Your task to perform on an android device: open chrome privacy settings Image 0: 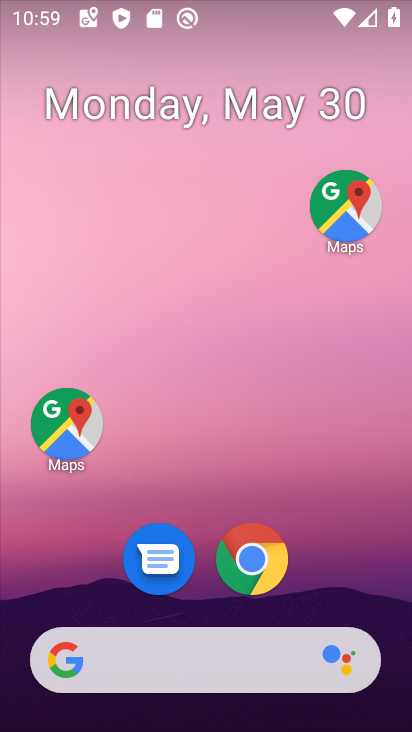
Step 0: drag from (330, 547) to (288, 169)
Your task to perform on an android device: open chrome privacy settings Image 1: 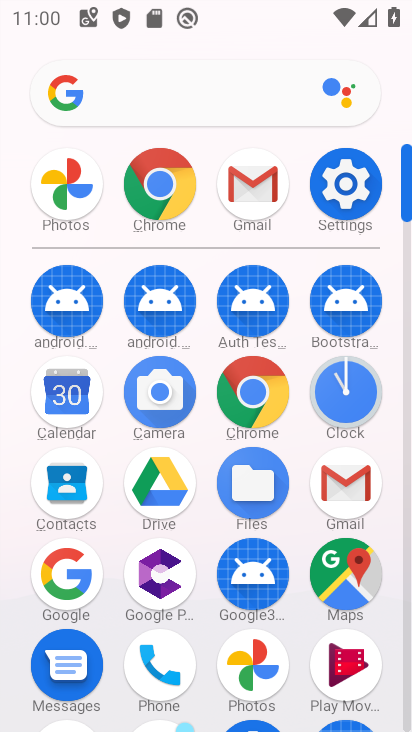
Step 1: click (345, 180)
Your task to perform on an android device: open chrome privacy settings Image 2: 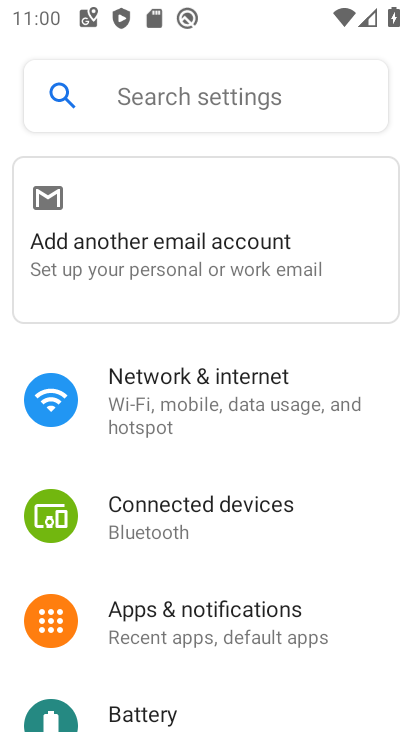
Step 2: drag from (252, 628) to (273, 233)
Your task to perform on an android device: open chrome privacy settings Image 3: 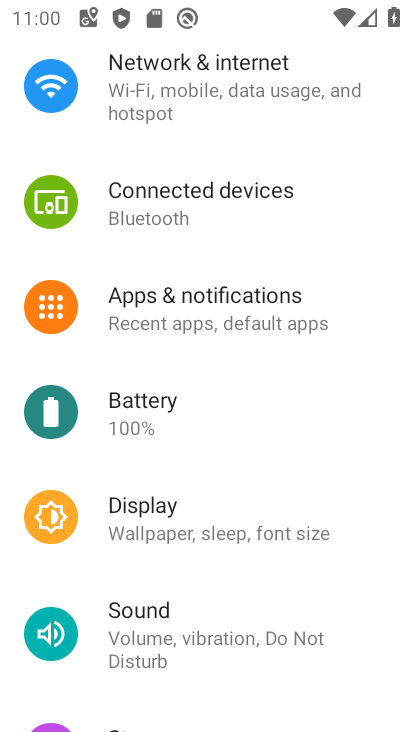
Step 3: drag from (235, 636) to (265, 347)
Your task to perform on an android device: open chrome privacy settings Image 4: 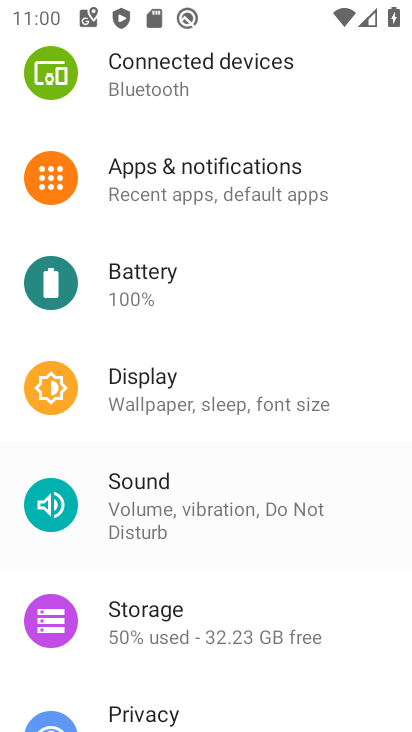
Step 4: click (263, 326)
Your task to perform on an android device: open chrome privacy settings Image 5: 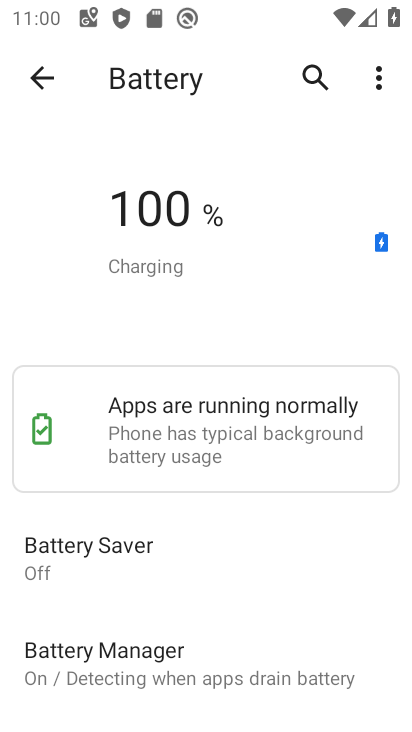
Step 5: click (47, 80)
Your task to perform on an android device: open chrome privacy settings Image 6: 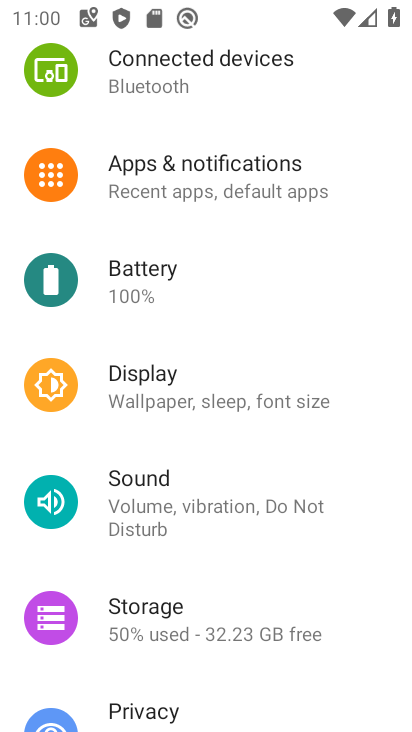
Step 6: drag from (244, 572) to (280, 157)
Your task to perform on an android device: open chrome privacy settings Image 7: 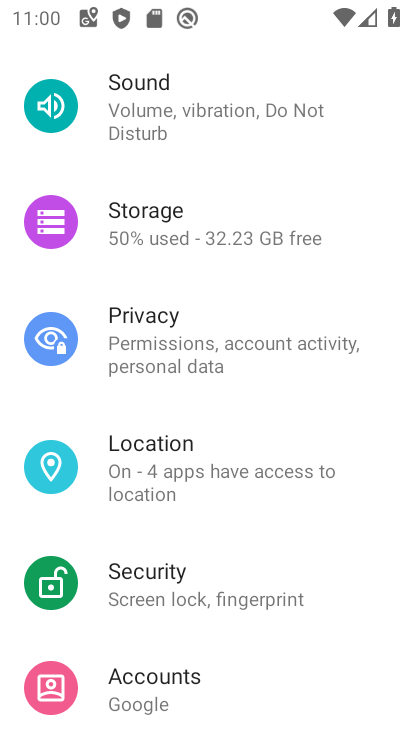
Step 7: click (199, 330)
Your task to perform on an android device: open chrome privacy settings Image 8: 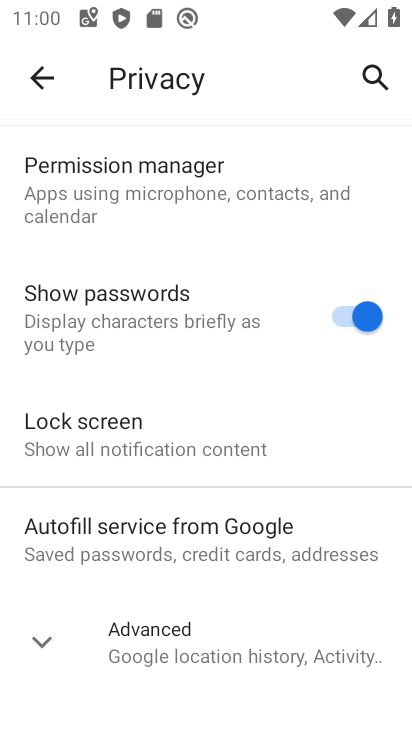
Step 8: task complete